Your task to perform on an android device: Open internet settings Image 0: 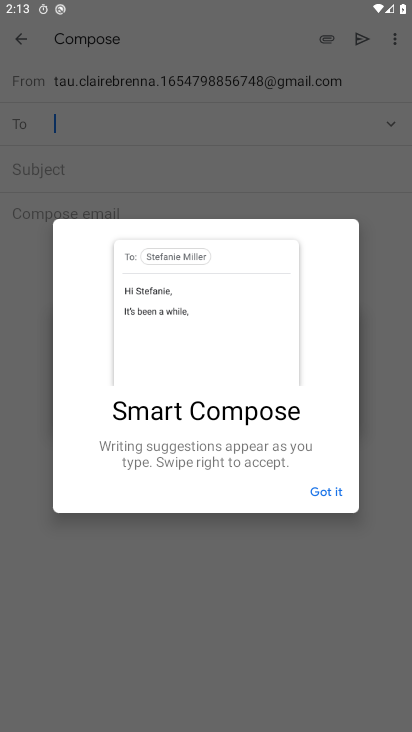
Step 0: press home button
Your task to perform on an android device: Open internet settings Image 1: 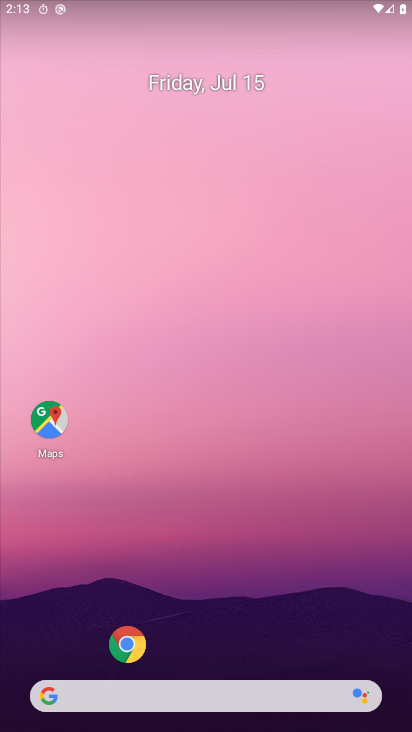
Step 1: drag from (24, 689) to (394, 59)
Your task to perform on an android device: Open internet settings Image 2: 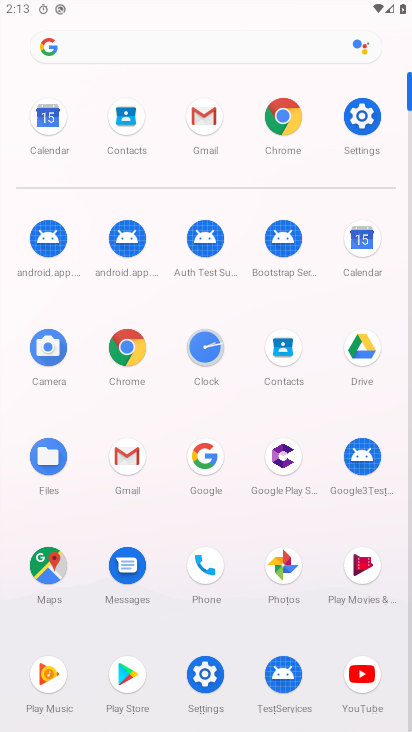
Step 2: click (206, 673)
Your task to perform on an android device: Open internet settings Image 3: 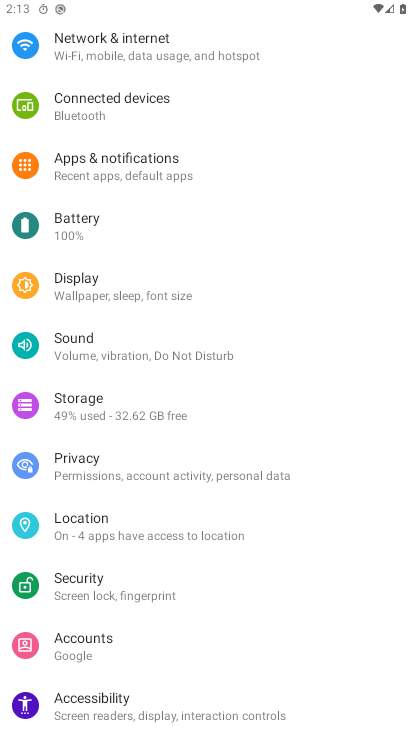
Step 3: click (168, 53)
Your task to perform on an android device: Open internet settings Image 4: 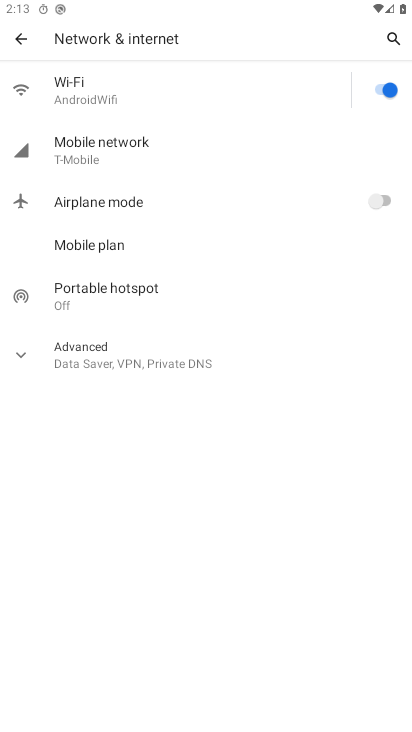
Step 4: task complete